Your task to perform on an android device: Open my contact list Image 0: 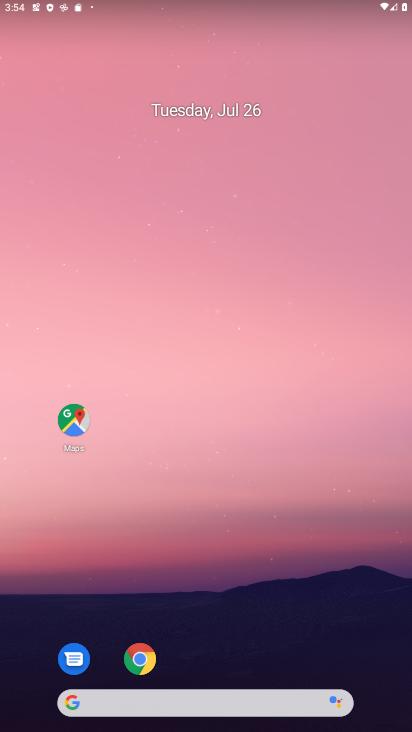
Step 0: drag from (305, 631) to (246, 98)
Your task to perform on an android device: Open my contact list Image 1: 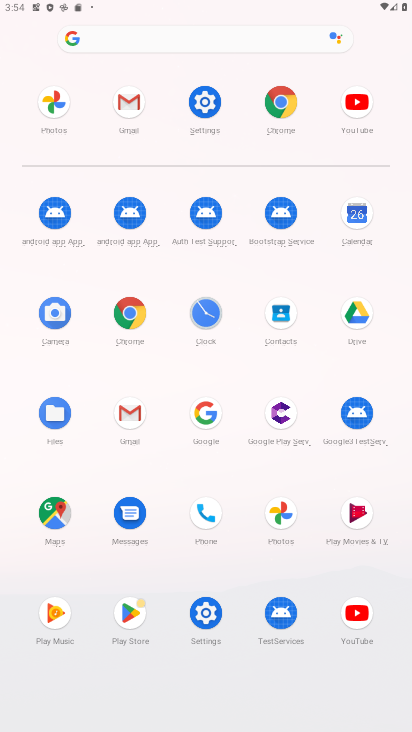
Step 1: click (283, 318)
Your task to perform on an android device: Open my contact list Image 2: 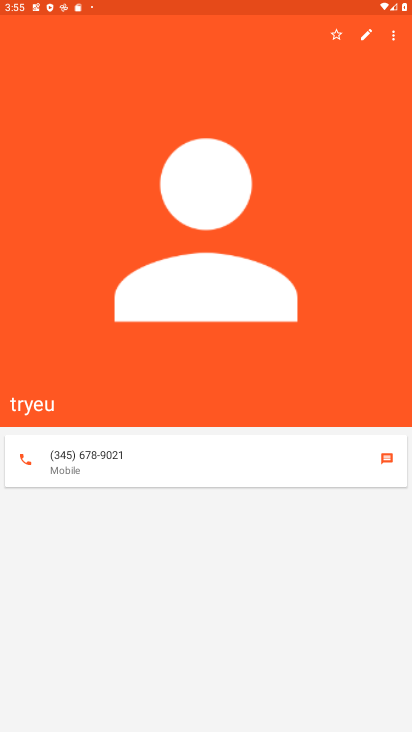
Step 2: task complete